Your task to perform on an android device: Show me the alarms in the clock app Image 0: 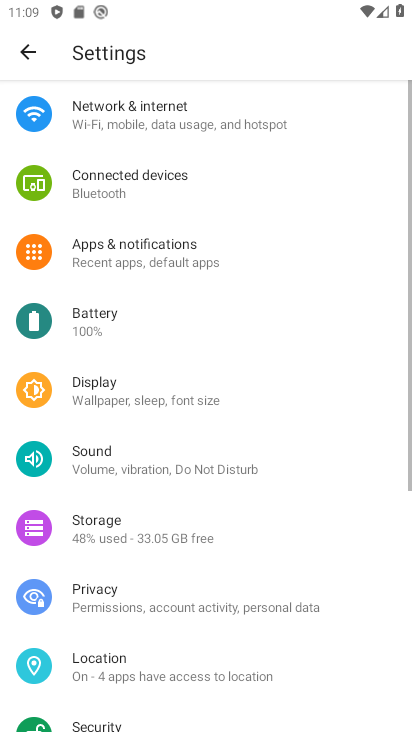
Step 0: press home button
Your task to perform on an android device: Show me the alarms in the clock app Image 1: 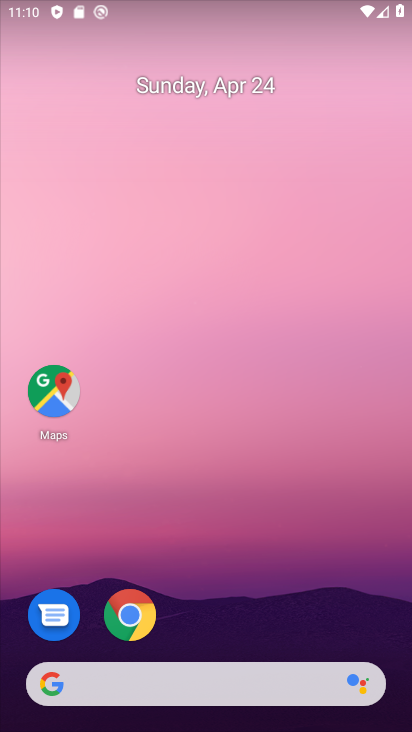
Step 1: drag from (229, 569) to (315, 131)
Your task to perform on an android device: Show me the alarms in the clock app Image 2: 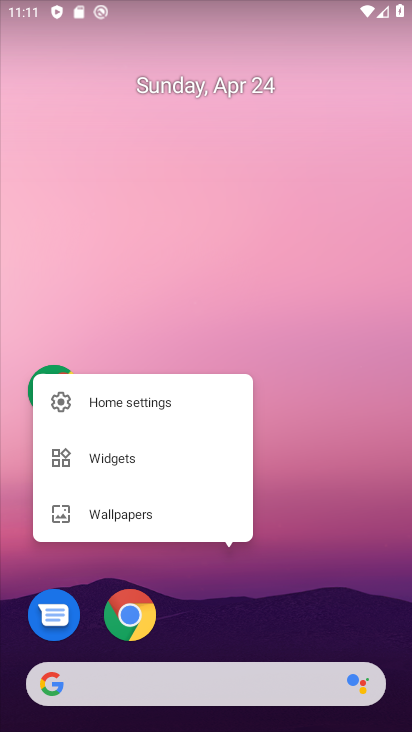
Step 2: click (285, 495)
Your task to perform on an android device: Show me the alarms in the clock app Image 3: 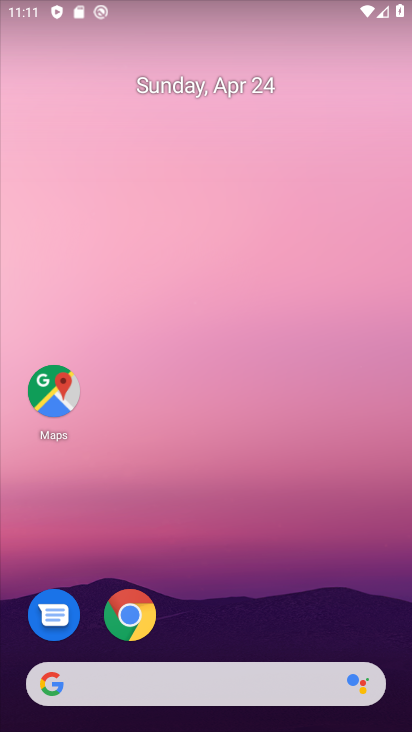
Step 3: drag from (264, 628) to (309, 54)
Your task to perform on an android device: Show me the alarms in the clock app Image 4: 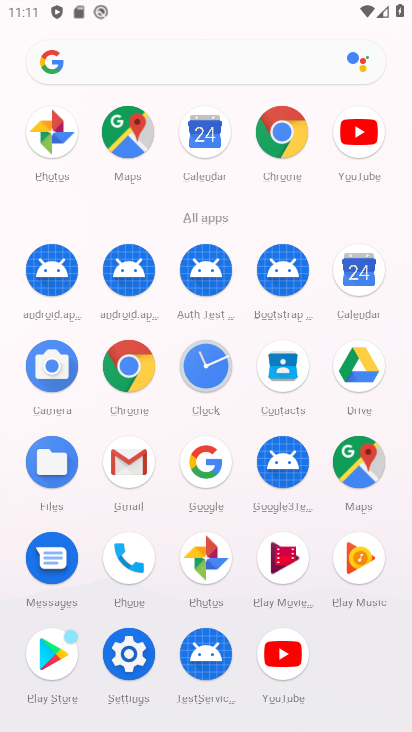
Step 4: click (217, 363)
Your task to perform on an android device: Show me the alarms in the clock app Image 5: 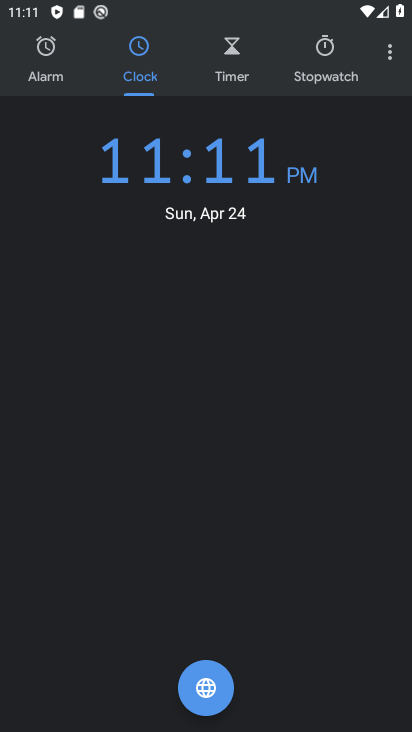
Step 5: click (53, 51)
Your task to perform on an android device: Show me the alarms in the clock app Image 6: 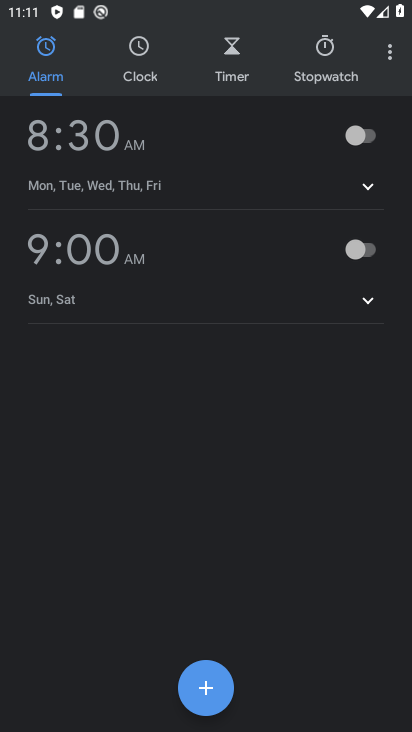
Step 6: task complete